Your task to perform on an android device: turn off notifications settings in the gmail app Image 0: 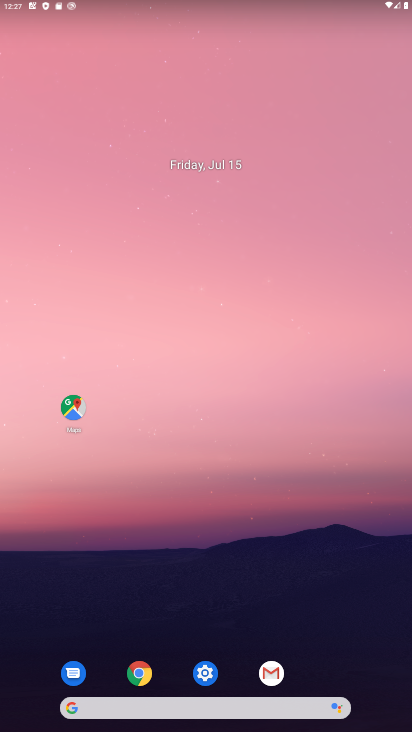
Step 0: press home button
Your task to perform on an android device: turn off notifications settings in the gmail app Image 1: 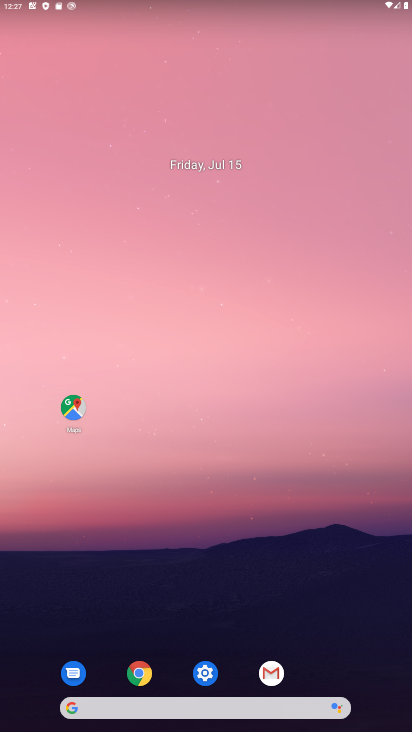
Step 1: click (265, 674)
Your task to perform on an android device: turn off notifications settings in the gmail app Image 2: 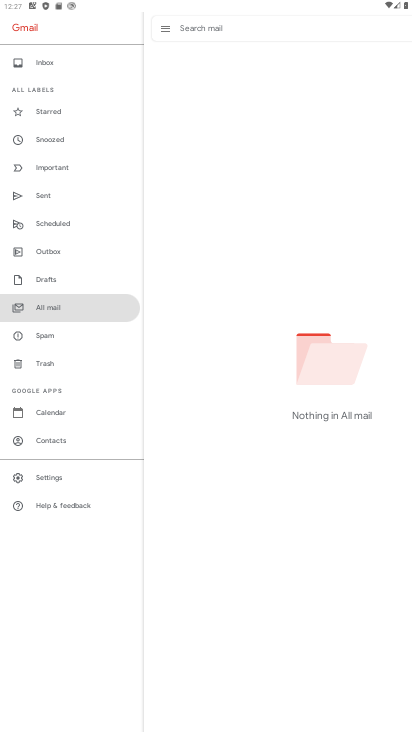
Step 2: click (43, 480)
Your task to perform on an android device: turn off notifications settings in the gmail app Image 3: 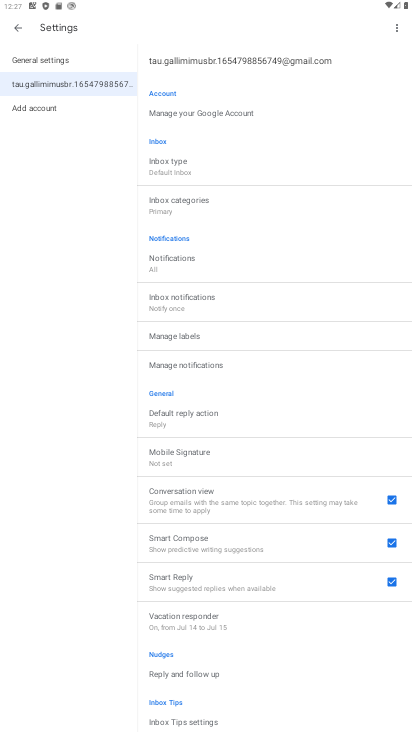
Step 3: click (175, 260)
Your task to perform on an android device: turn off notifications settings in the gmail app Image 4: 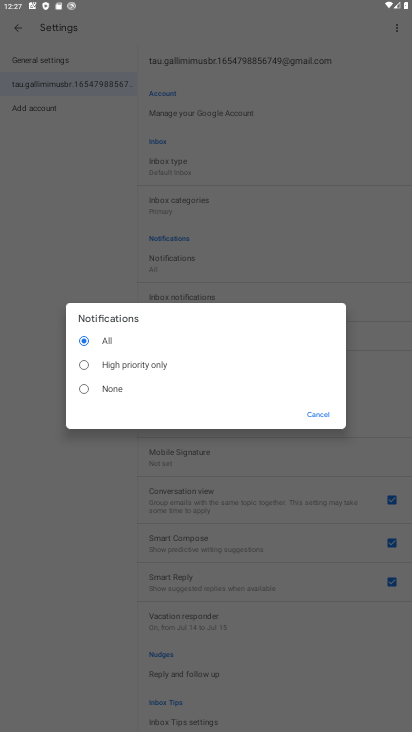
Step 4: click (123, 381)
Your task to perform on an android device: turn off notifications settings in the gmail app Image 5: 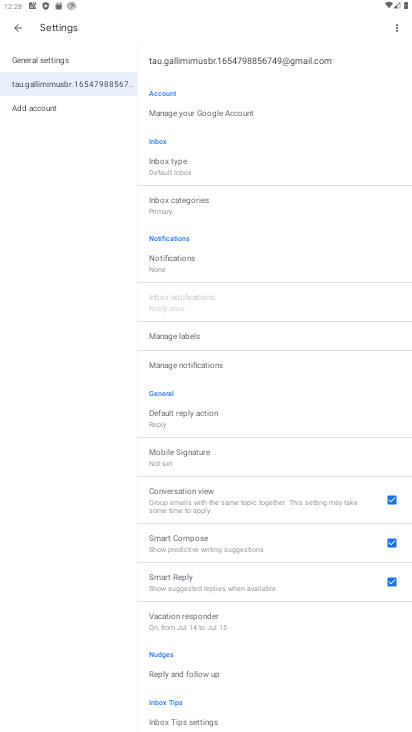
Step 5: task complete